Your task to perform on an android device: turn on location history Image 0: 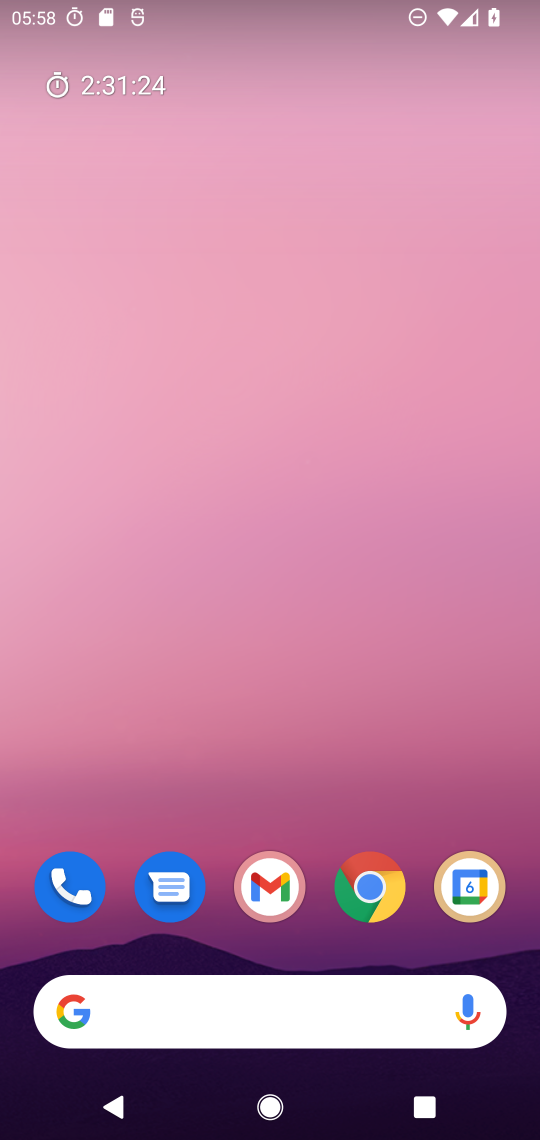
Step 0: press home button
Your task to perform on an android device: turn on location history Image 1: 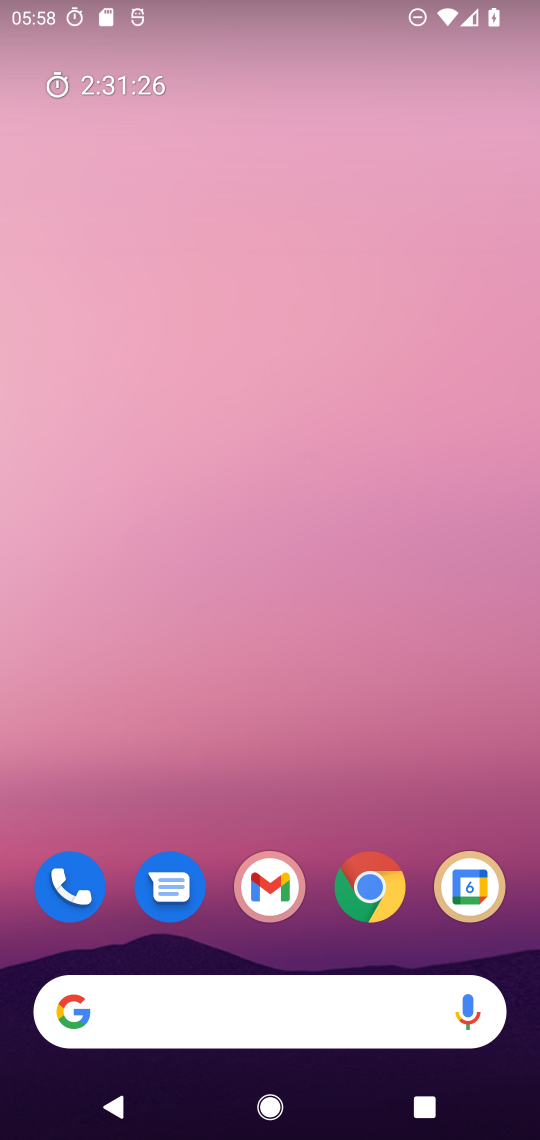
Step 1: drag from (397, 819) to (446, 276)
Your task to perform on an android device: turn on location history Image 2: 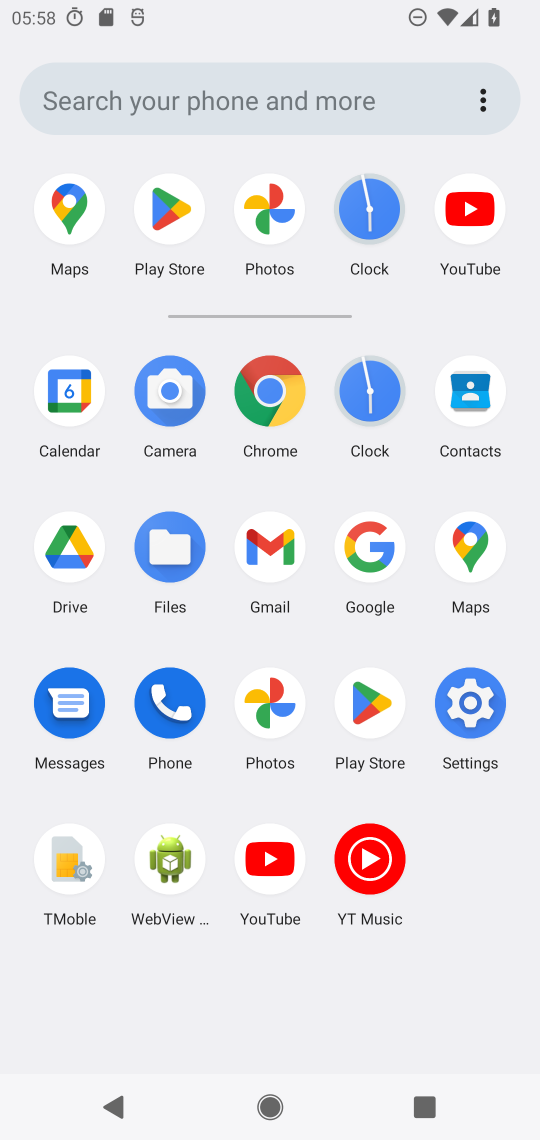
Step 2: click (472, 708)
Your task to perform on an android device: turn on location history Image 3: 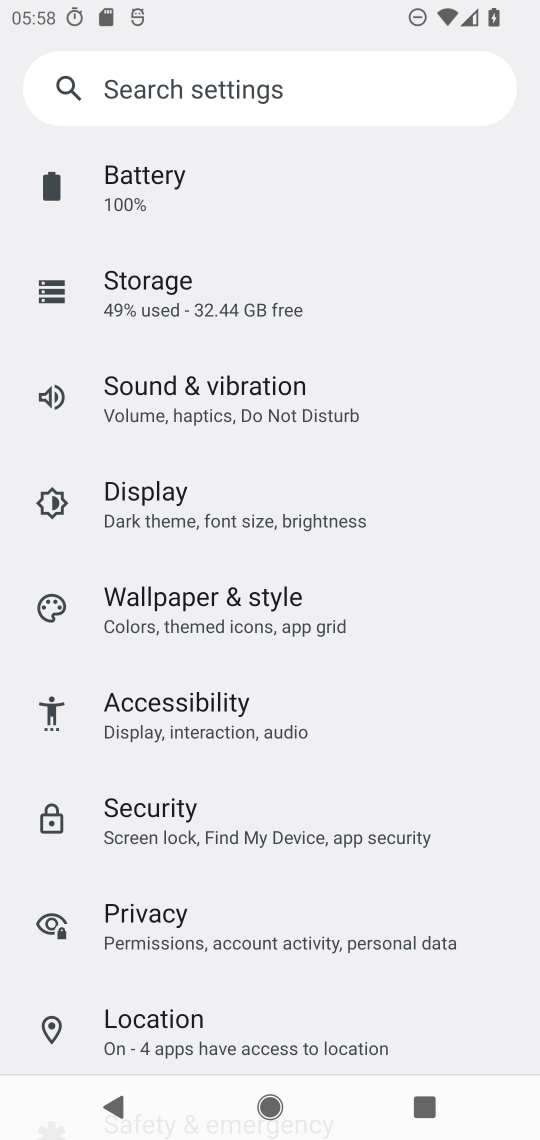
Step 3: drag from (478, 820) to (475, 630)
Your task to perform on an android device: turn on location history Image 4: 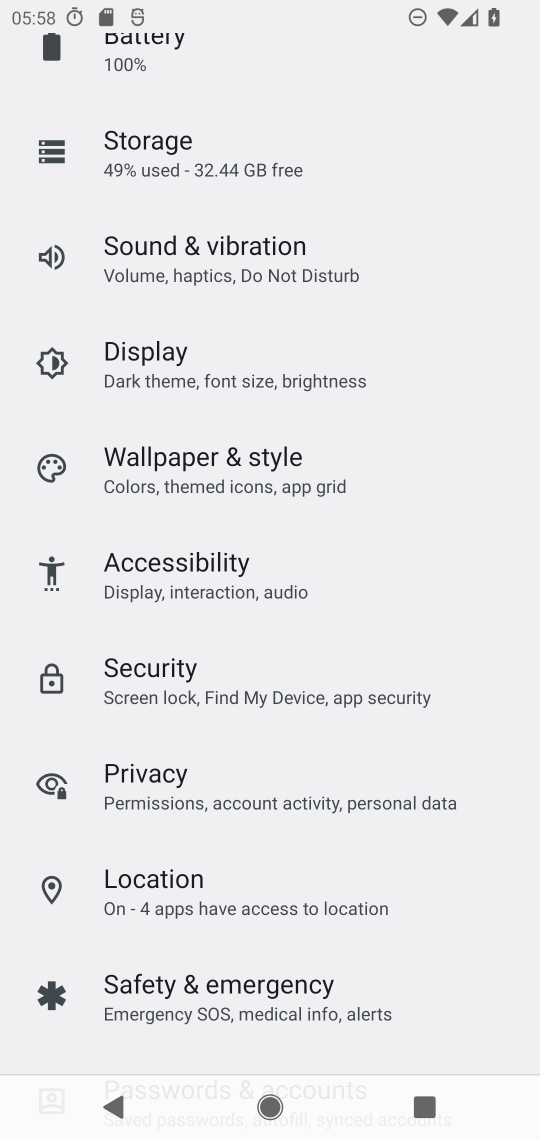
Step 4: drag from (483, 882) to (483, 668)
Your task to perform on an android device: turn on location history Image 5: 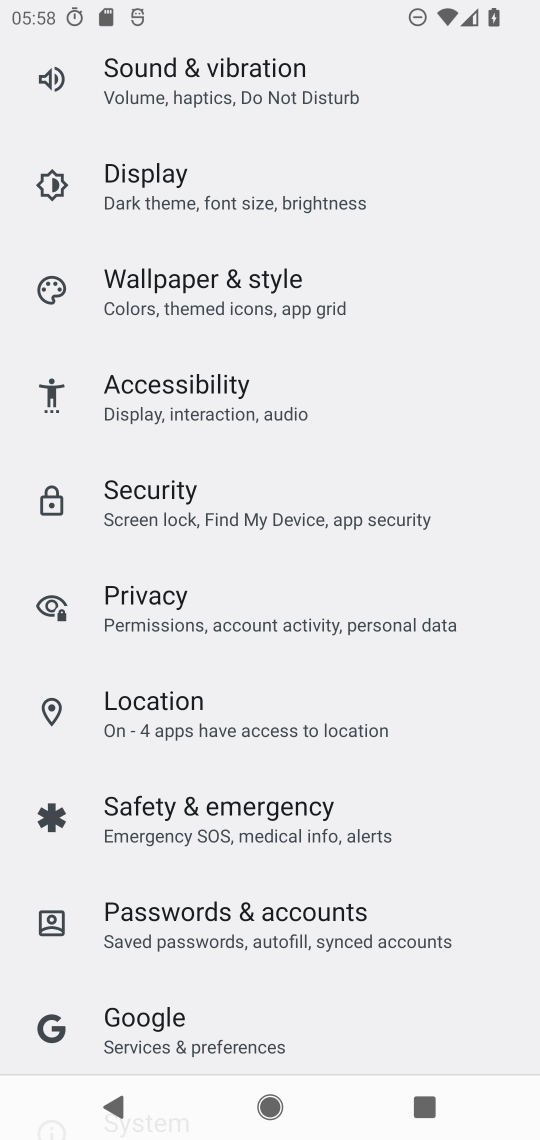
Step 5: drag from (483, 968) to (513, 722)
Your task to perform on an android device: turn on location history Image 6: 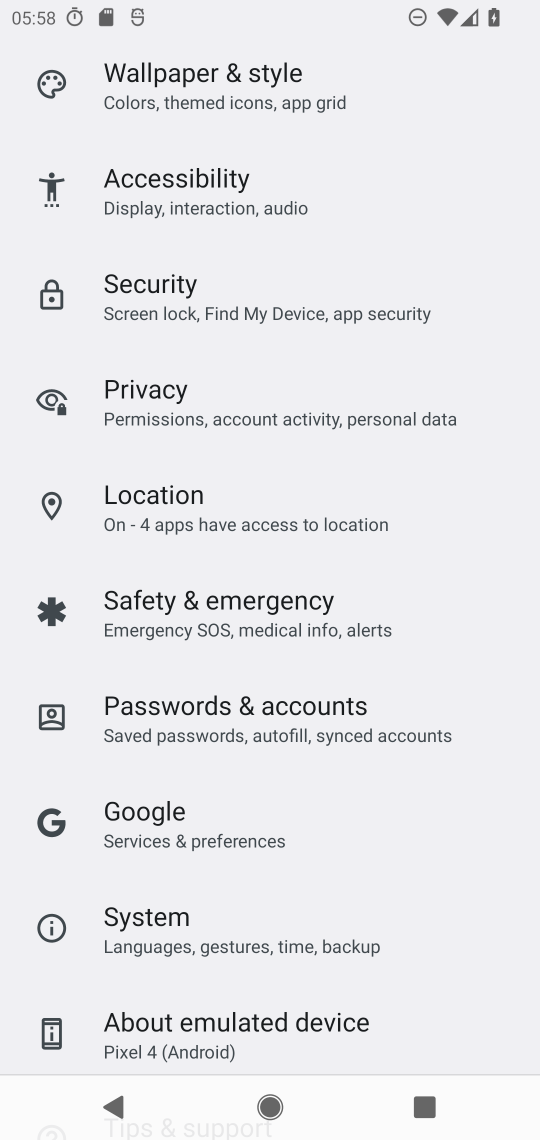
Step 6: drag from (458, 942) to (479, 693)
Your task to perform on an android device: turn on location history Image 7: 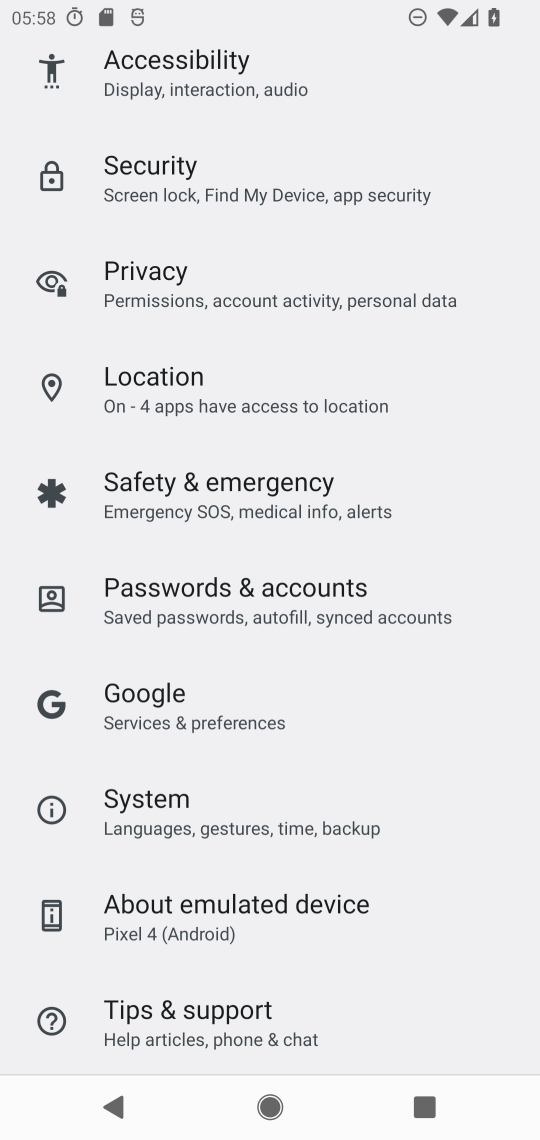
Step 7: drag from (452, 959) to (467, 709)
Your task to perform on an android device: turn on location history Image 8: 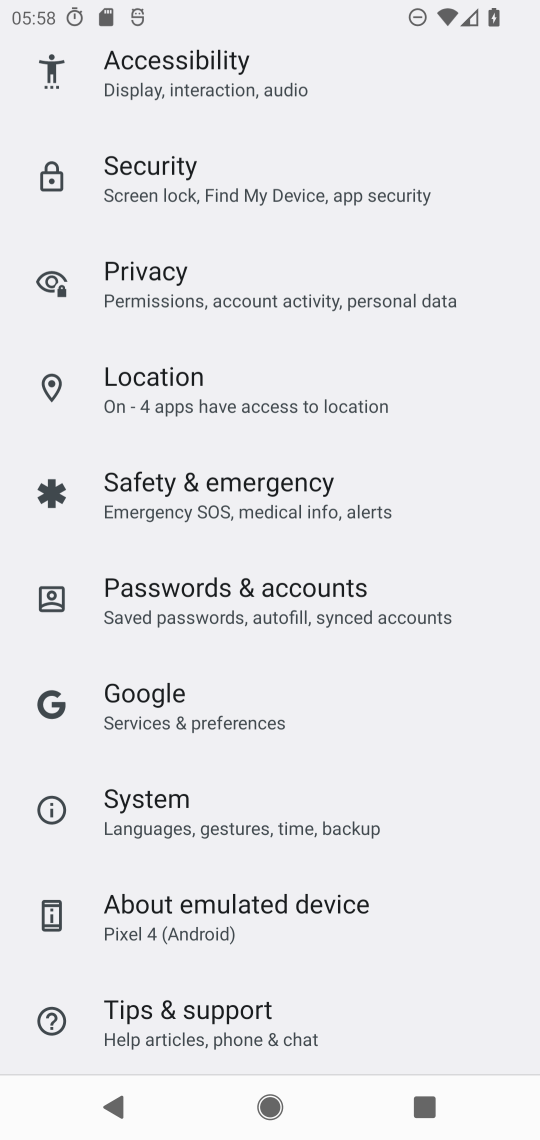
Step 8: drag from (473, 516) to (472, 780)
Your task to perform on an android device: turn on location history Image 9: 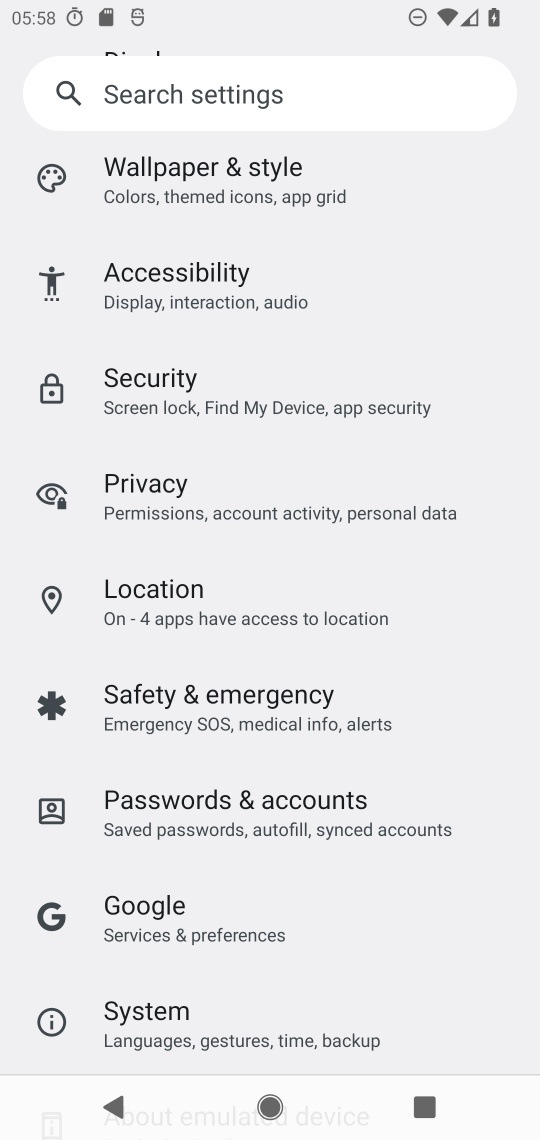
Step 9: drag from (480, 416) to (484, 660)
Your task to perform on an android device: turn on location history Image 10: 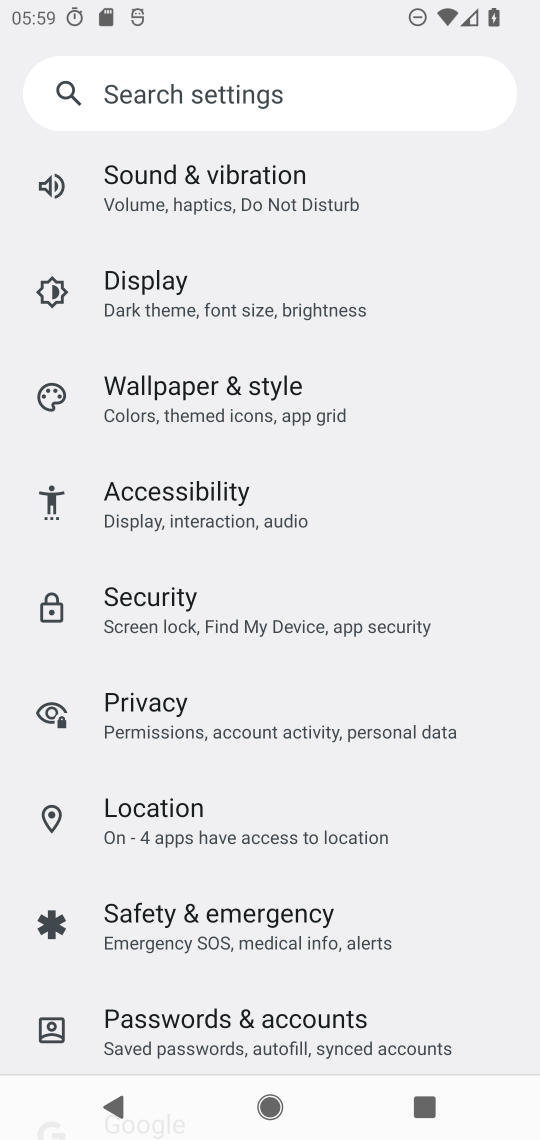
Step 10: click (388, 841)
Your task to perform on an android device: turn on location history Image 11: 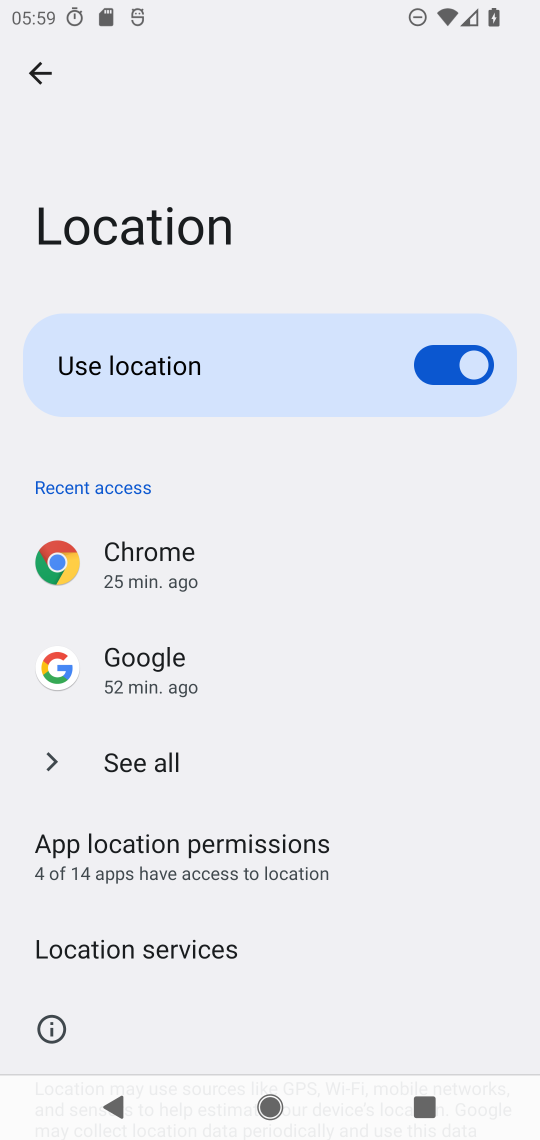
Step 11: click (271, 945)
Your task to perform on an android device: turn on location history Image 12: 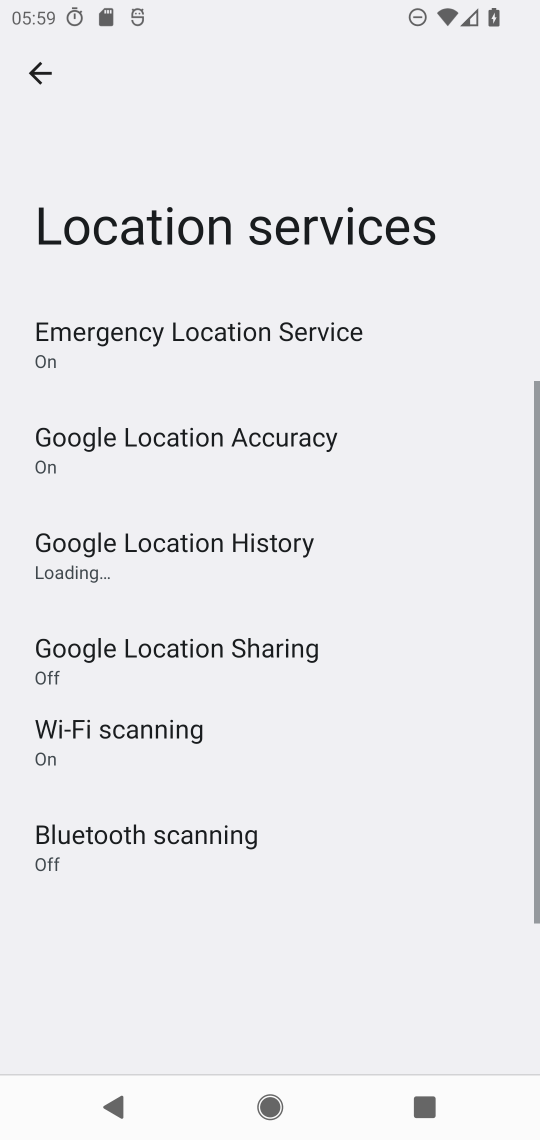
Step 12: drag from (405, 909) to (428, 604)
Your task to perform on an android device: turn on location history Image 13: 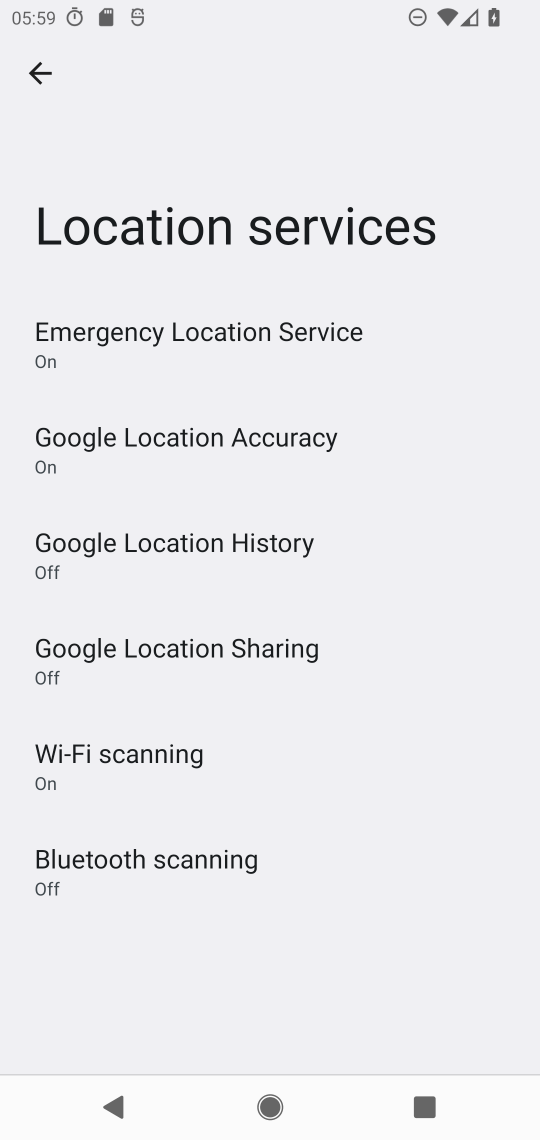
Step 13: click (286, 529)
Your task to perform on an android device: turn on location history Image 14: 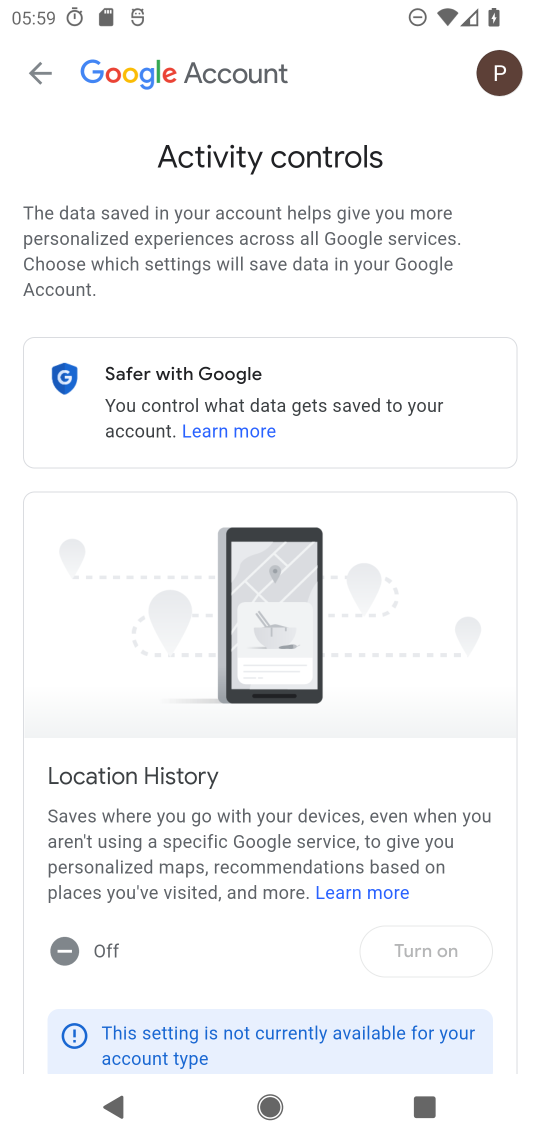
Step 14: task complete